Your task to perform on an android device: Show me the alarms in the clock app Image 0: 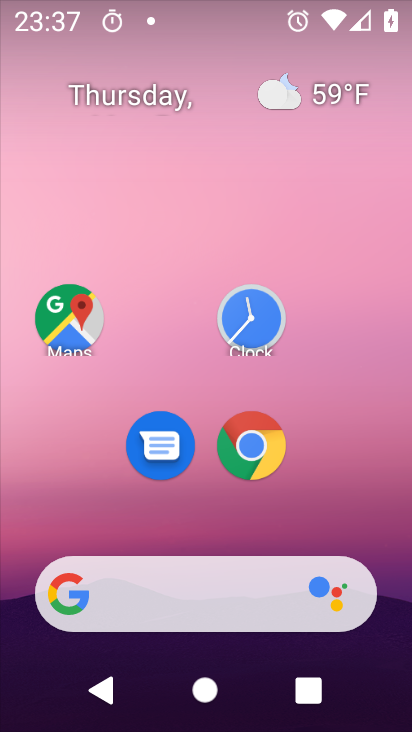
Step 0: drag from (212, 582) to (161, 167)
Your task to perform on an android device: Show me the alarms in the clock app Image 1: 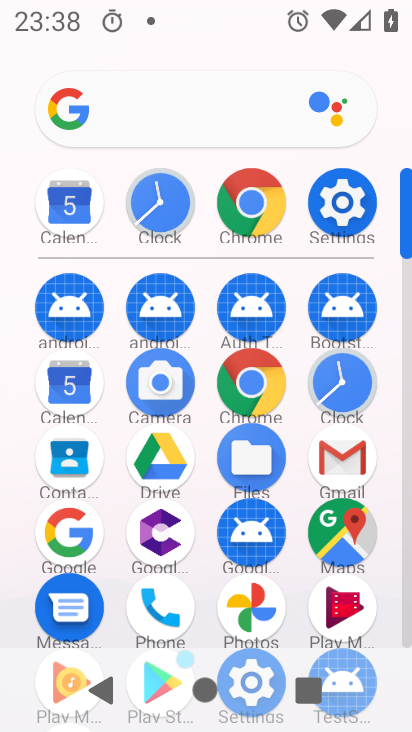
Step 1: click (341, 377)
Your task to perform on an android device: Show me the alarms in the clock app Image 2: 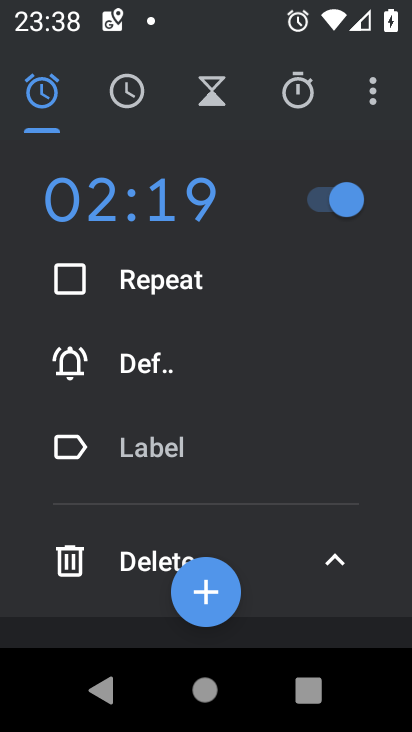
Step 2: task complete